Your task to perform on an android device: toggle translation in the chrome app Image 0: 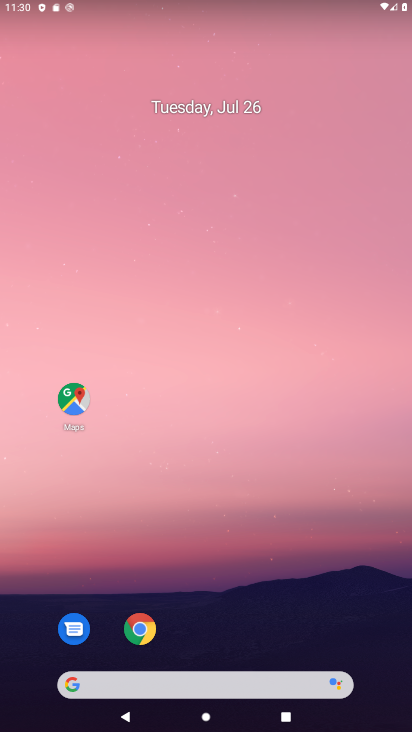
Step 0: drag from (234, 721) to (236, 153)
Your task to perform on an android device: toggle translation in the chrome app Image 1: 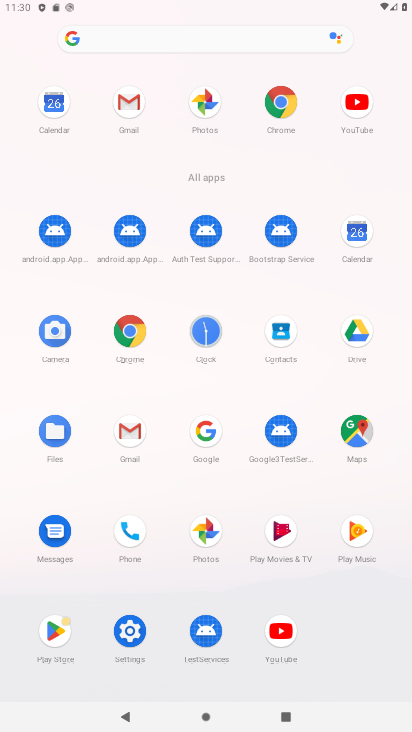
Step 1: click (130, 330)
Your task to perform on an android device: toggle translation in the chrome app Image 2: 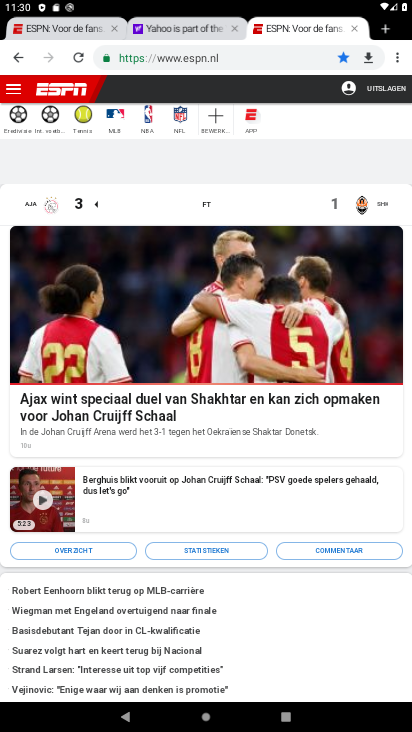
Step 2: click (397, 65)
Your task to perform on an android device: toggle translation in the chrome app Image 3: 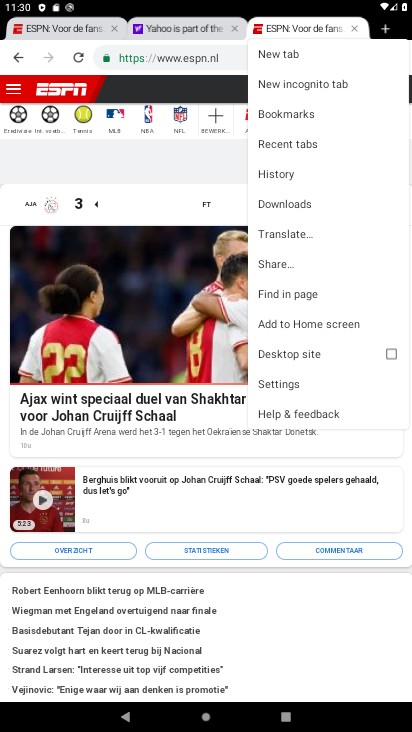
Step 3: click (284, 378)
Your task to perform on an android device: toggle translation in the chrome app Image 4: 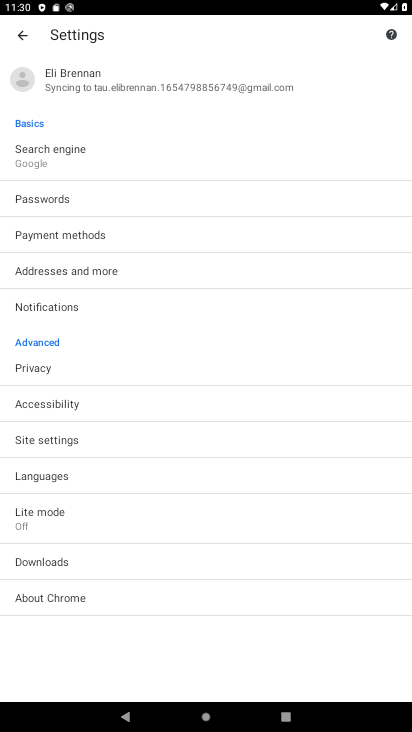
Step 4: click (54, 472)
Your task to perform on an android device: toggle translation in the chrome app Image 5: 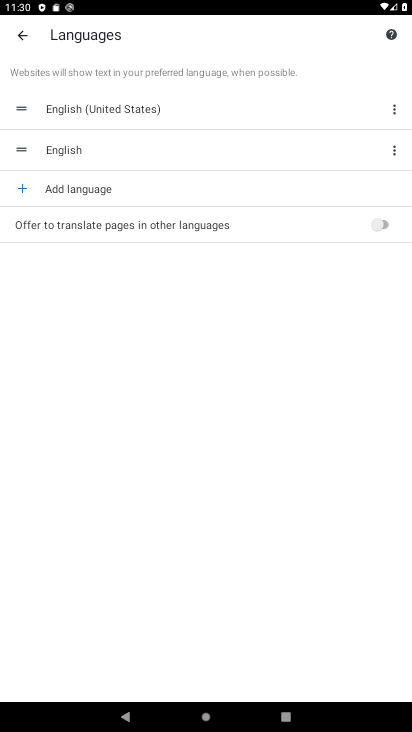
Step 5: click (385, 225)
Your task to perform on an android device: toggle translation in the chrome app Image 6: 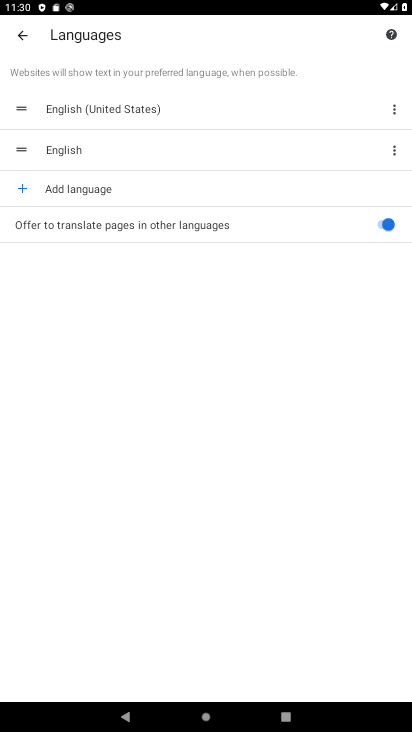
Step 6: task complete